Your task to perform on an android device: Open privacy settings Image 0: 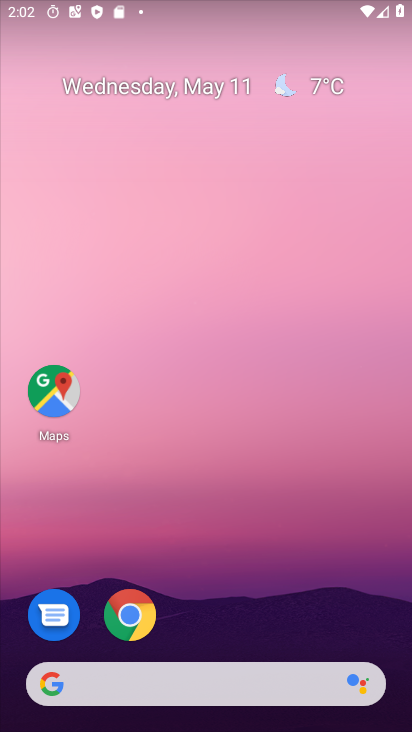
Step 0: drag from (214, 670) to (161, 48)
Your task to perform on an android device: Open privacy settings Image 1: 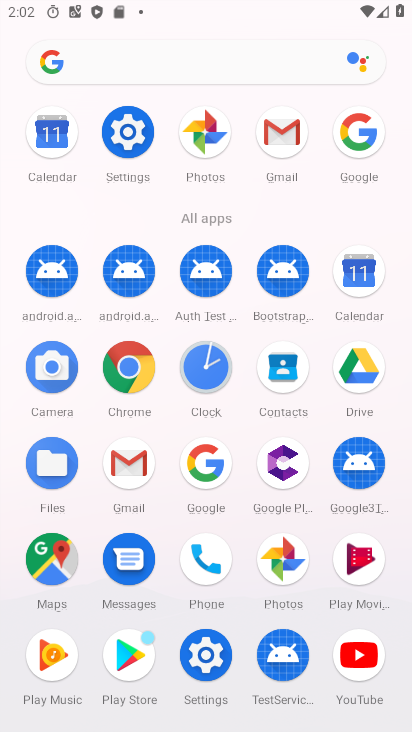
Step 1: click (133, 144)
Your task to perform on an android device: Open privacy settings Image 2: 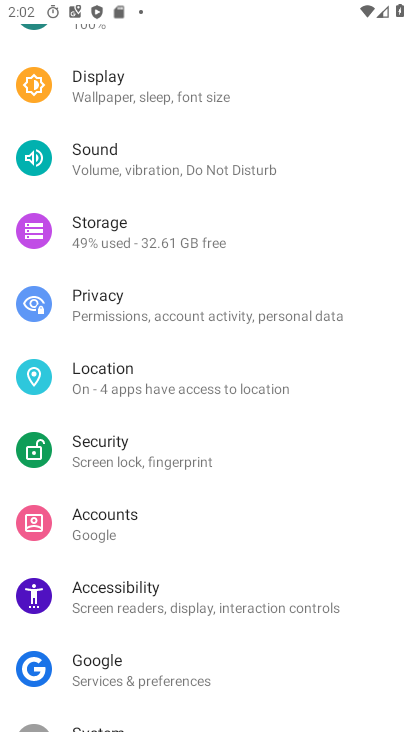
Step 2: click (90, 292)
Your task to perform on an android device: Open privacy settings Image 3: 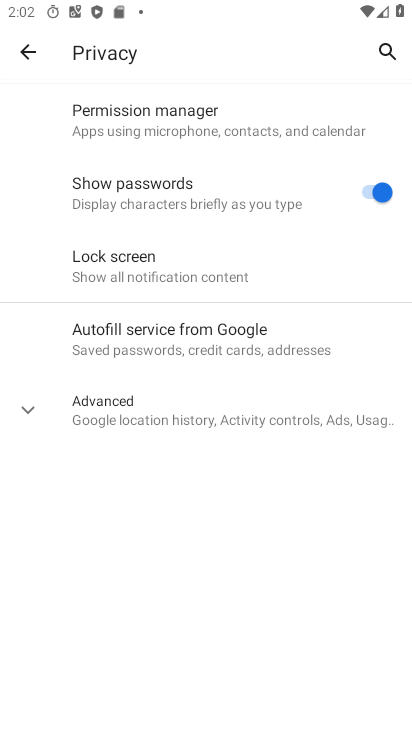
Step 3: task complete